Your task to perform on an android device: turn off wifi Image 0: 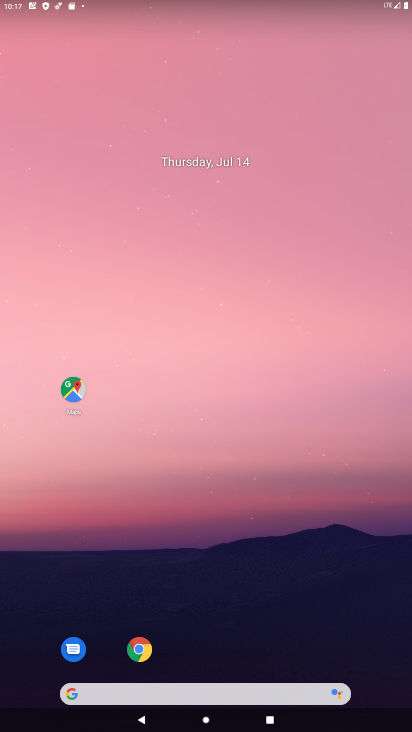
Step 0: press home button
Your task to perform on an android device: turn off wifi Image 1: 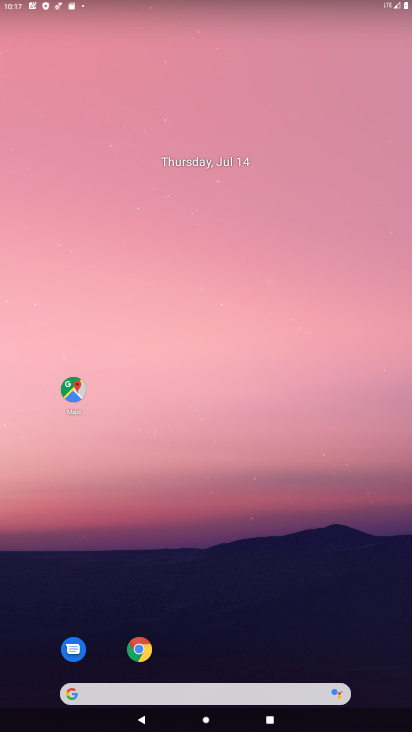
Step 1: drag from (248, 593) to (195, 53)
Your task to perform on an android device: turn off wifi Image 2: 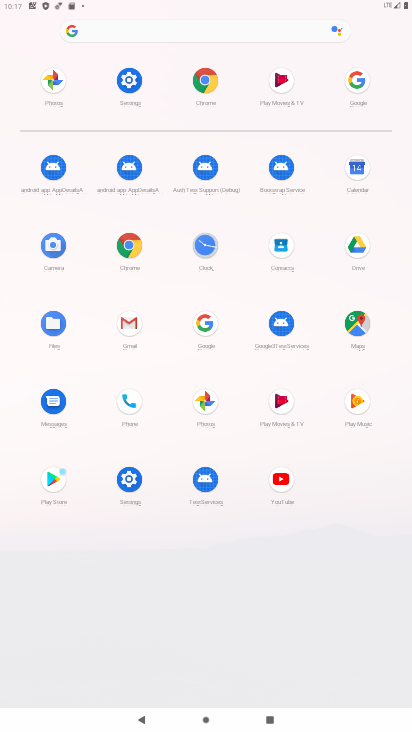
Step 2: click (134, 83)
Your task to perform on an android device: turn off wifi Image 3: 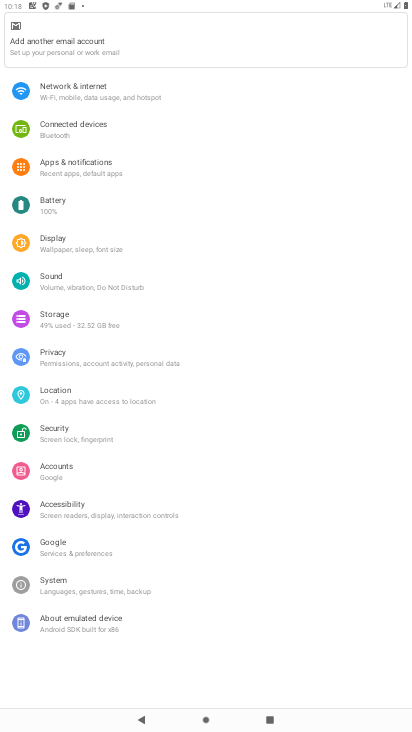
Step 3: click (100, 98)
Your task to perform on an android device: turn off wifi Image 4: 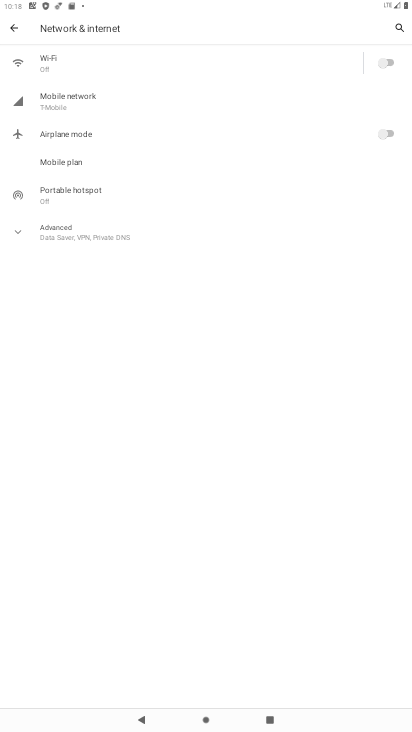
Step 4: task complete